Your task to perform on an android device: Check the weather Image 0: 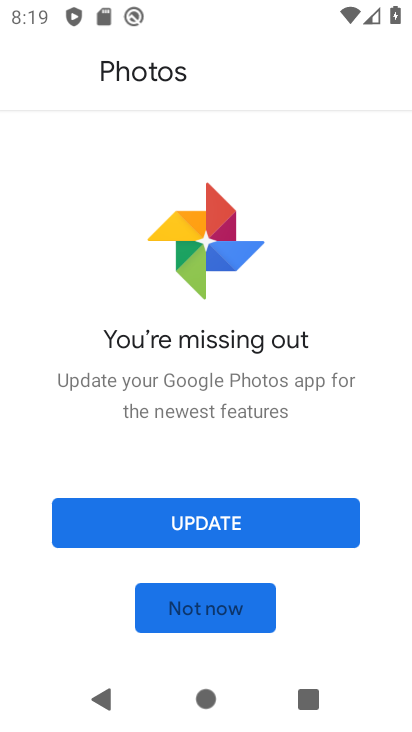
Step 0: press home button
Your task to perform on an android device: Check the weather Image 1: 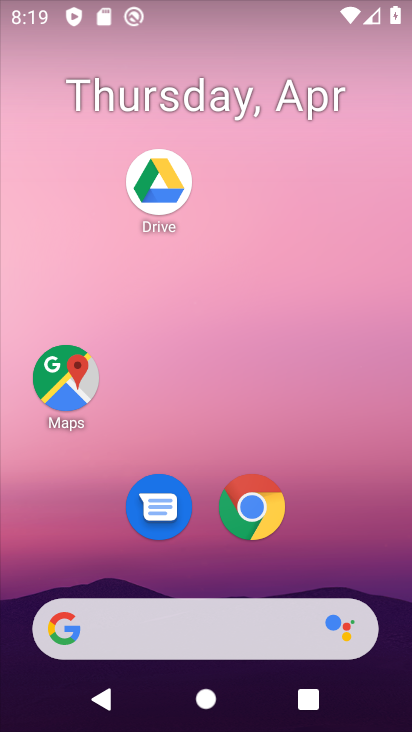
Step 1: click (230, 625)
Your task to perform on an android device: Check the weather Image 2: 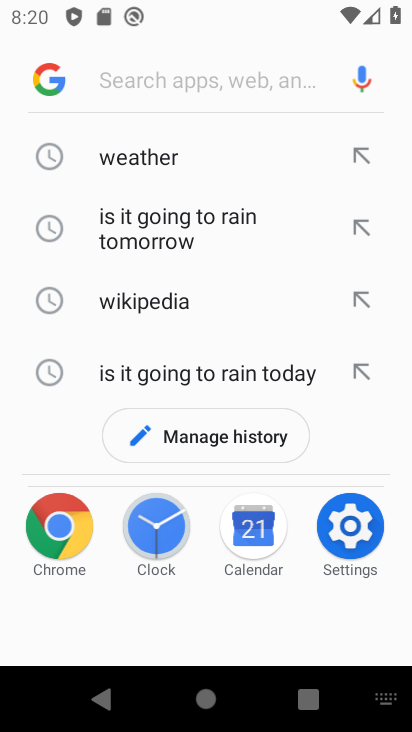
Step 2: click (154, 153)
Your task to perform on an android device: Check the weather Image 3: 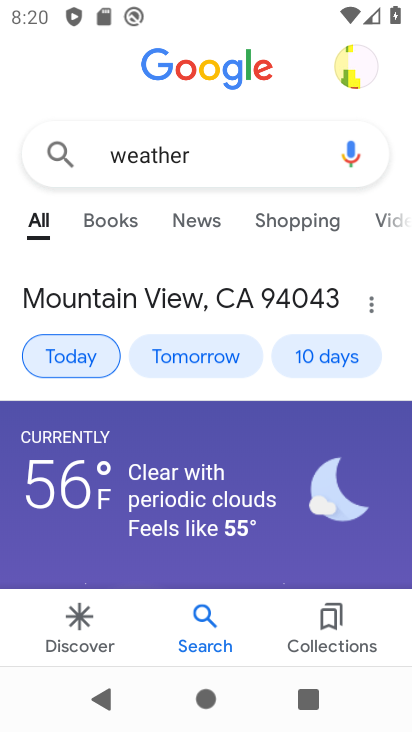
Step 3: task complete